Your task to perform on an android device: Open Wikipedia Image 0: 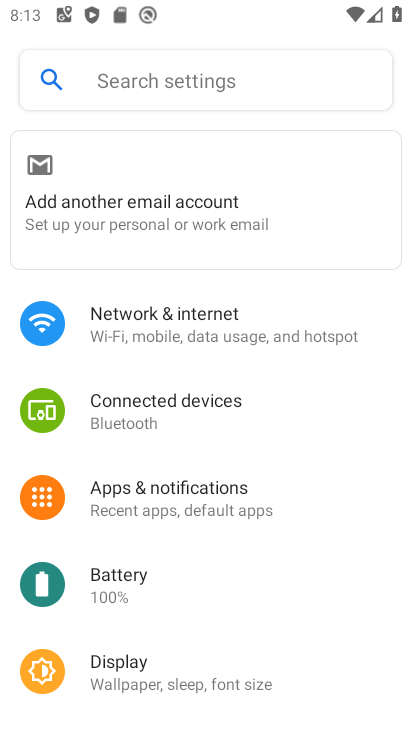
Step 0: press home button
Your task to perform on an android device: Open Wikipedia Image 1: 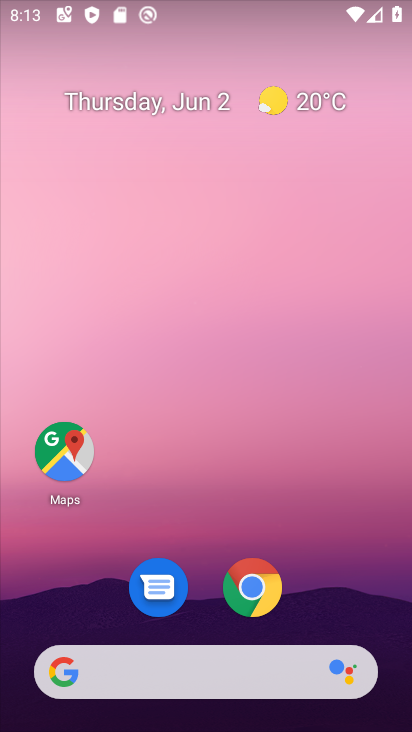
Step 1: click (253, 592)
Your task to perform on an android device: Open Wikipedia Image 2: 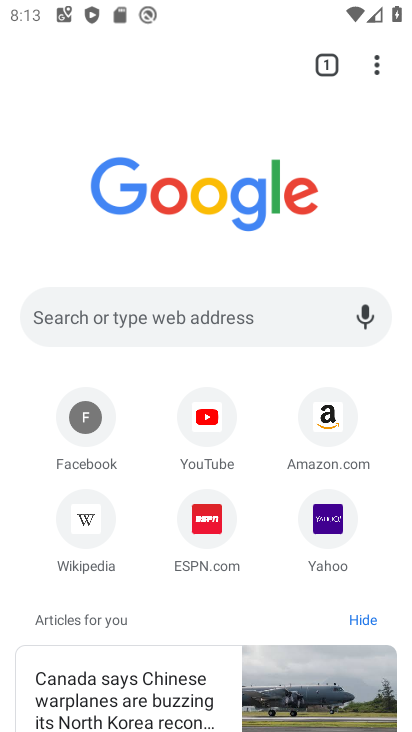
Step 2: click (90, 522)
Your task to perform on an android device: Open Wikipedia Image 3: 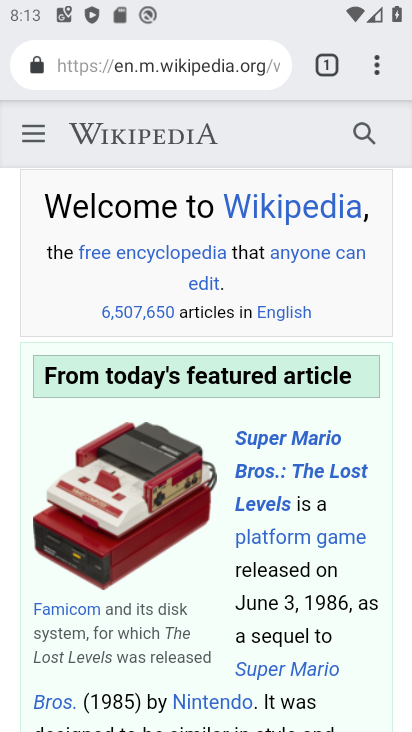
Step 3: task complete